Your task to perform on an android device: Open the map Image 0: 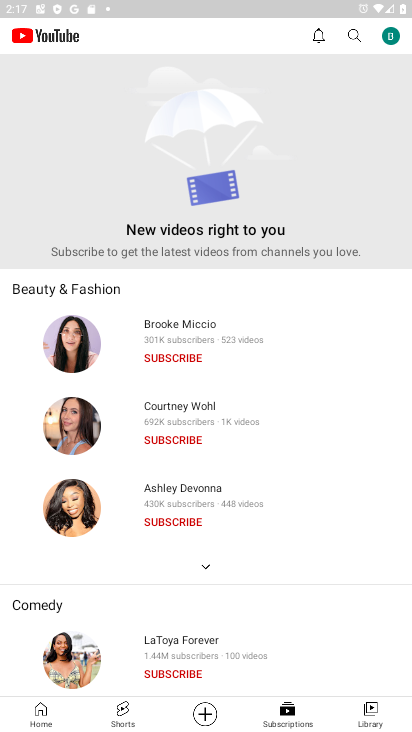
Step 0: press home button
Your task to perform on an android device: Open the map Image 1: 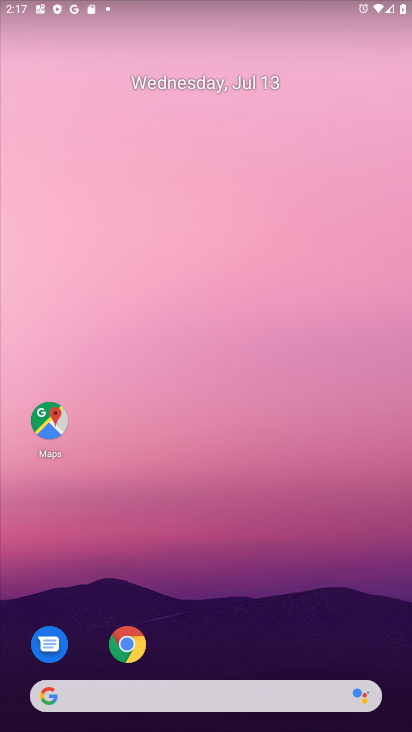
Step 1: click (56, 413)
Your task to perform on an android device: Open the map Image 2: 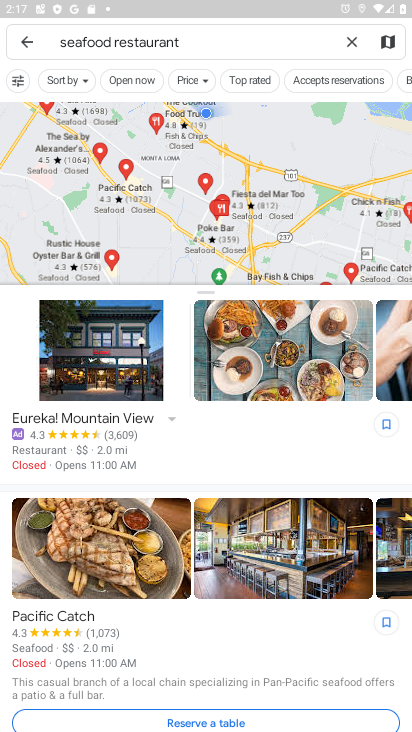
Step 2: task complete